Your task to perform on an android device: open device folders in google photos Image 0: 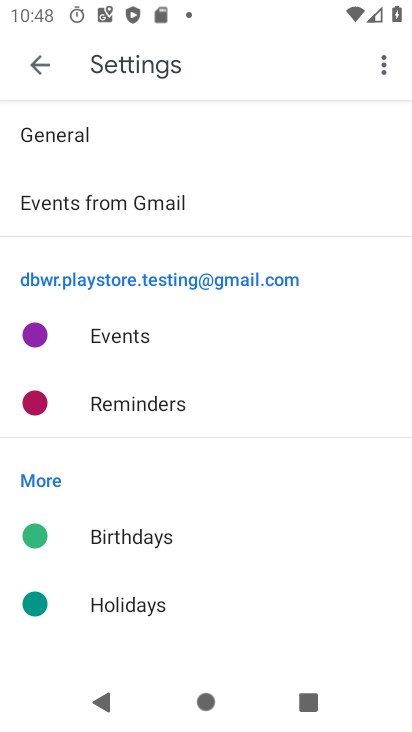
Step 0: press home button
Your task to perform on an android device: open device folders in google photos Image 1: 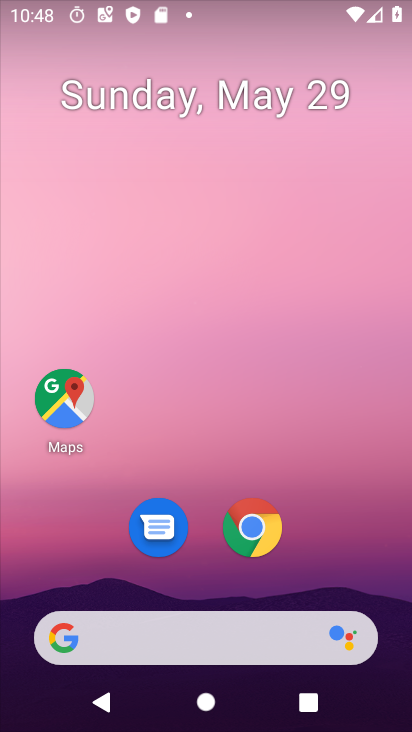
Step 1: drag from (323, 482) to (277, 5)
Your task to perform on an android device: open device folders in google photos Image 2: 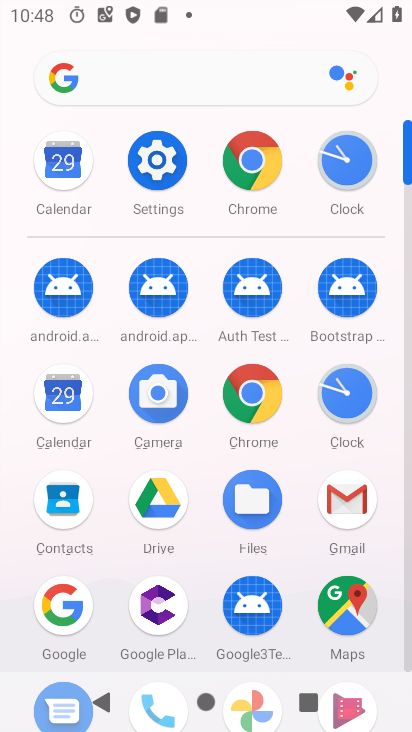
Step 2: drag from (281, 525) to (301, 187)
Your task to perform on an android device: open device folders in google photos Image 3: 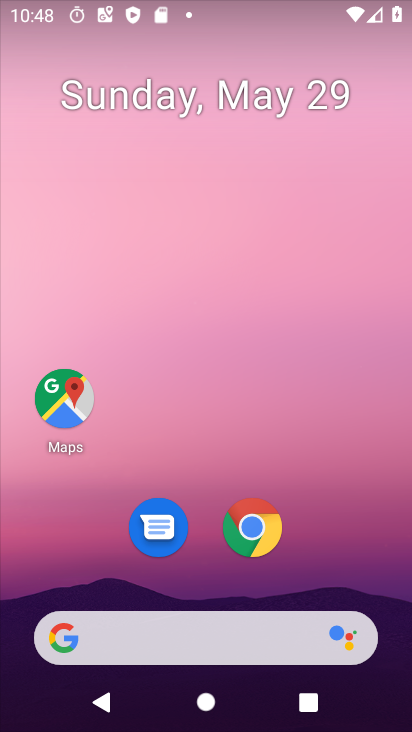
Step 3: drag from (330, 570) to (287, 82)
Your task to perform on an android device: open device folders in google photos Image 4: 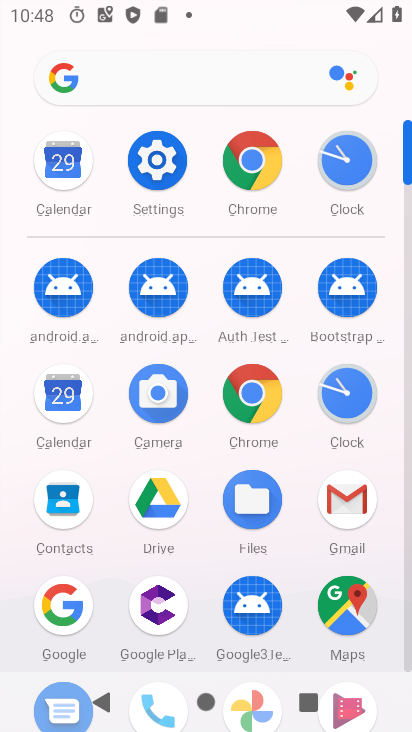
Step 4: drag from (309, 568) to (300, 211)
Your task to perform on an android device: open device folders in google photos Image 5: 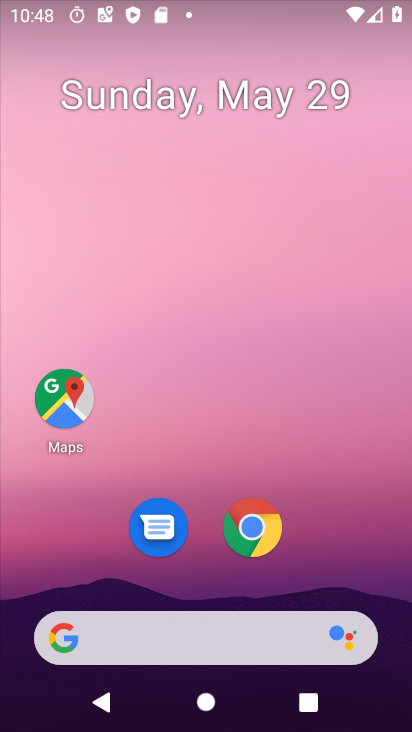
Step 5: drag from (327, 548) to (304, 111)
Your task to perform on an android device: open device folders in google photos Image 6: 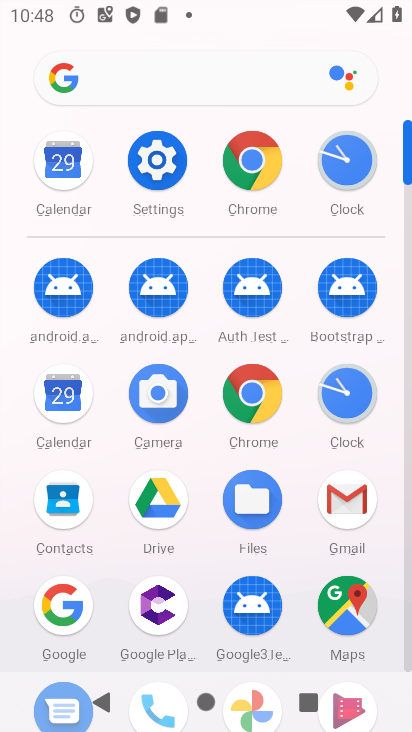
Step 6: drag from (300, 541) to (307, 194)
Your task to perform on an android device: open device folders in google photos Image 7: 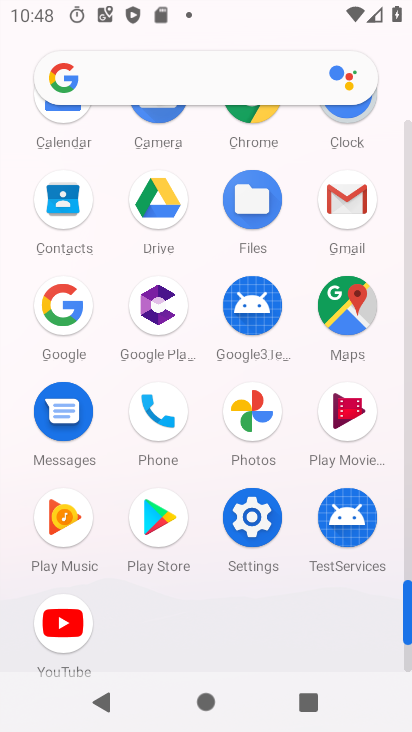
Step 7: click (259, 436)
Your task to perform on an android device: open device folders in google photos Image 8: 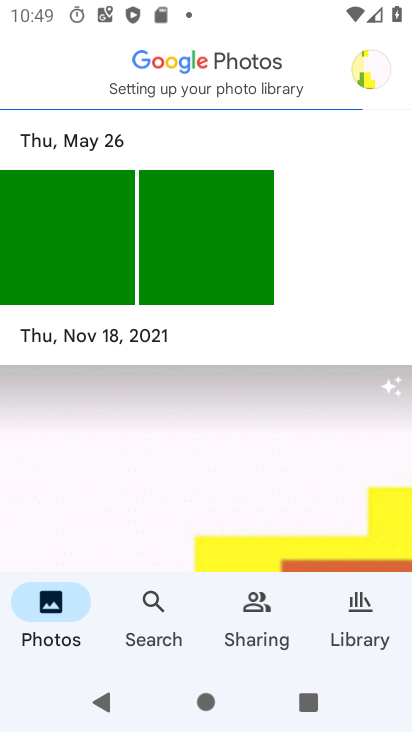
Step 8: click (367, 610)
Your task to perform on an android device: open device folders in google photos Image 9: 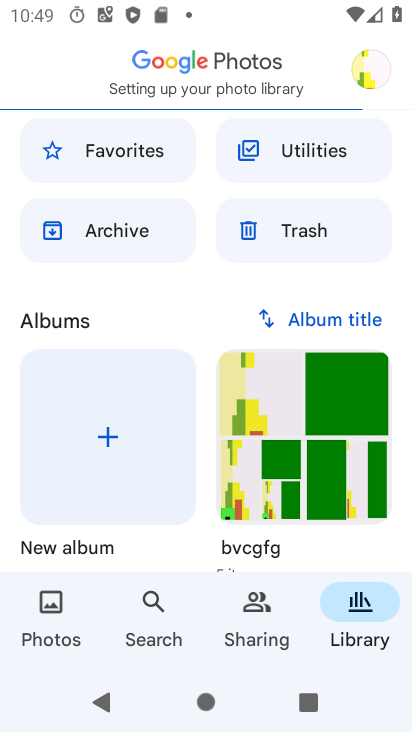
Step 9: drag from (293, 475) to (339, 99)
Your task to perform on an android device: open device folders in google photos Image 10: 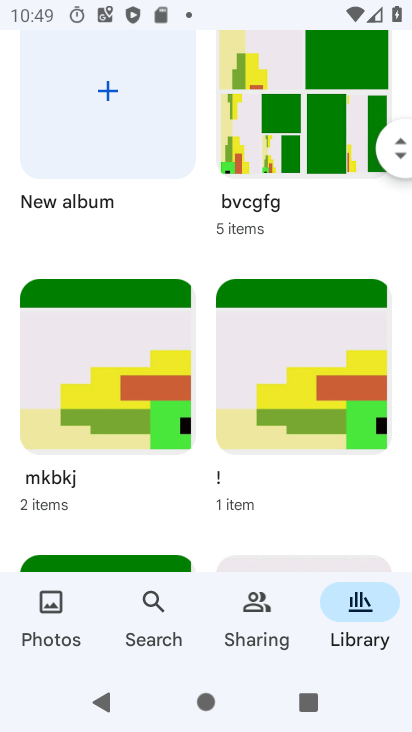
Step 10: drag from (321, 131) to (314, 642)
Your task to perform on an android device: open device folders in google photos Image 11: 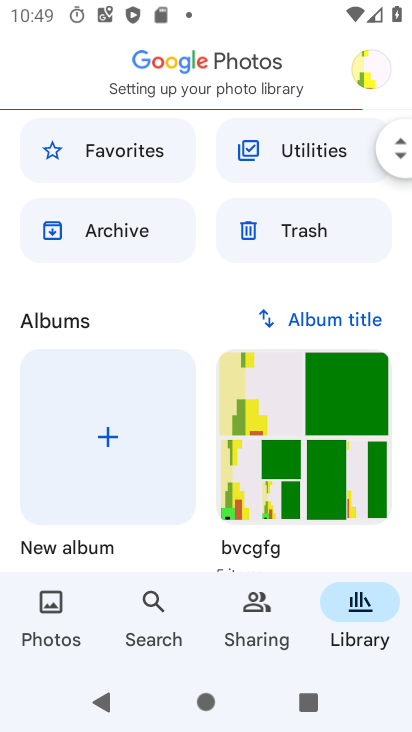
Step 11: click (298, 155)
Your task to perform on an android device: open device folders in google photos Image 12: 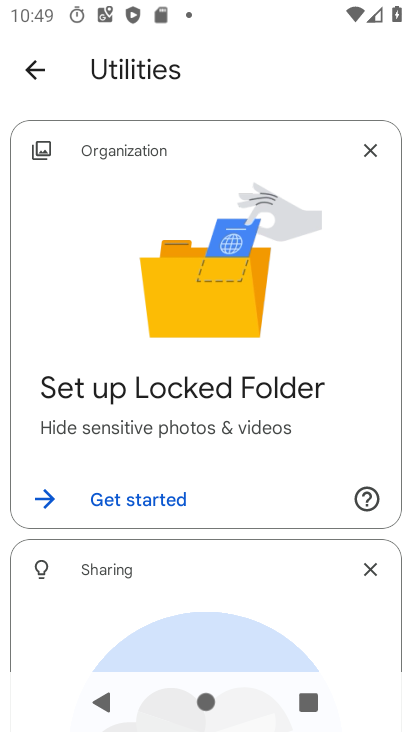
Step 12: drag from (244, 379) to (255, 20)
Your task to perform on an android device: open device folders in google photos Image 13: 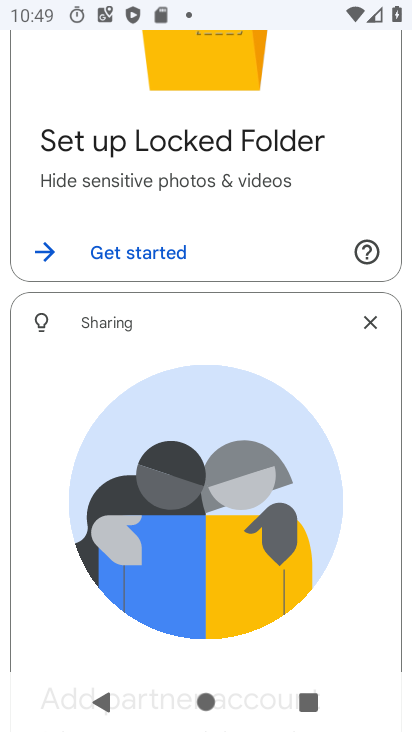
Step 13: drag from (167, 503) to (225, 45)
Your task to perform on an android device: open device folders in google photos Image 14: 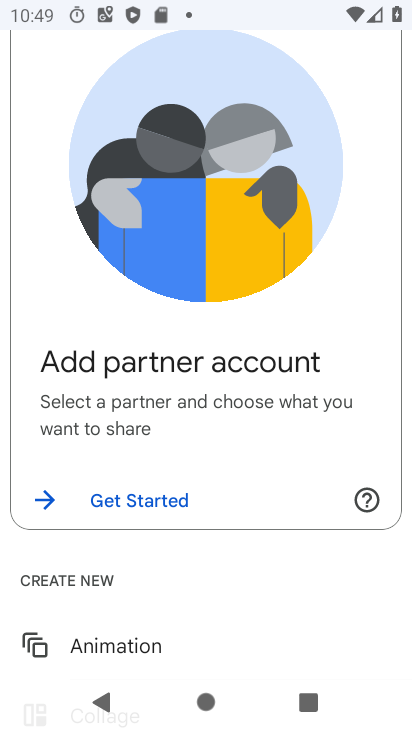
Step 14: drag from (199, 609) to (242, 113)
Your task to perform on an android device: open device folders in google photos Image 15: 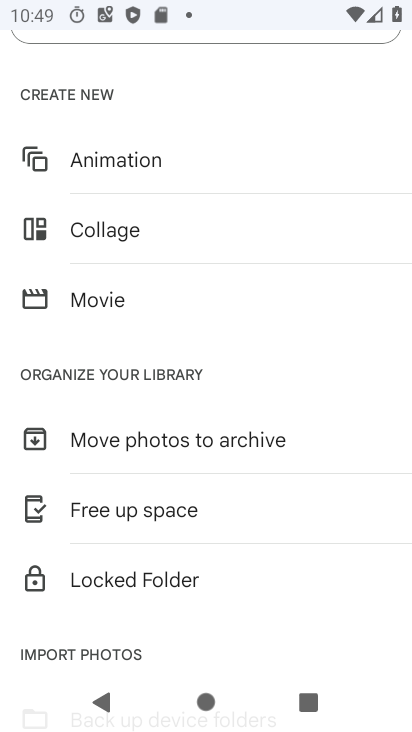
Step 15: drag from (212, 426) to (268, 149)
Your task to perform on an android device: open device folders in google photos Image 16: 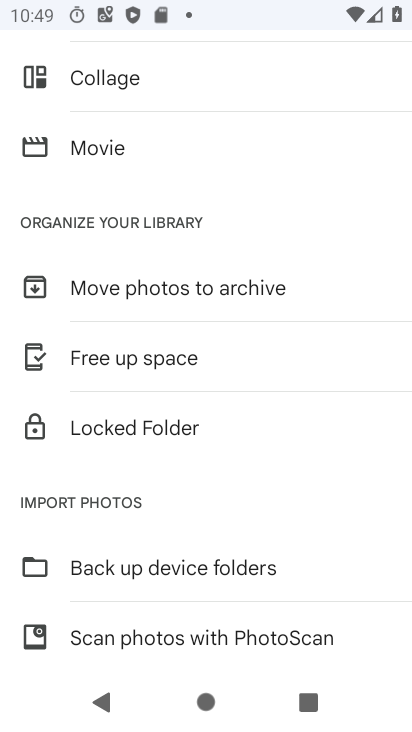
Step 16: click (215, 571)
Your task to perform on an android device: open device folders in google photos Image 17: 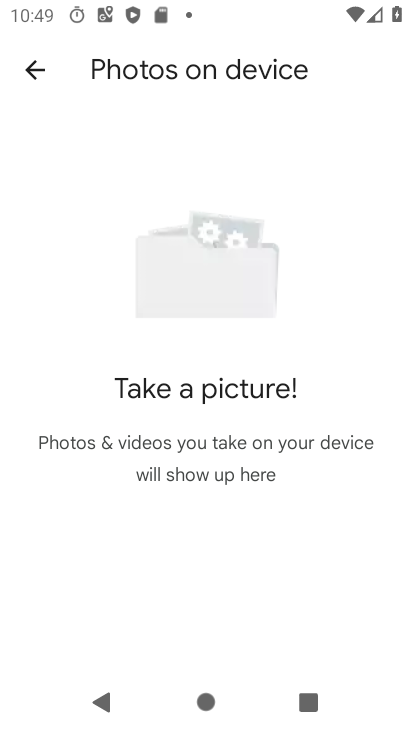
Step 17: task complete